Your task to perform on an android device: Do I have any events this weekend? Image 0: 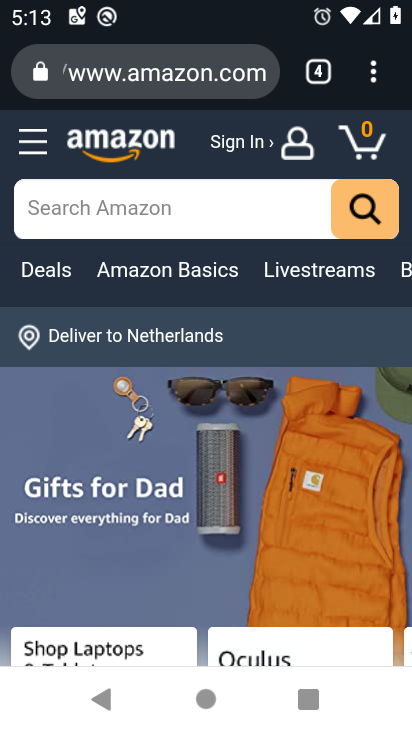
Step 0: press home button
Your task to perform on an android device: Do I have any events this weekend? Image 1: 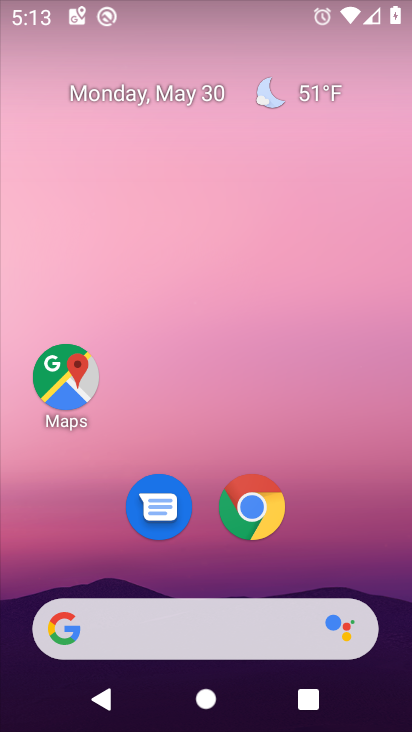
Step 1: drag from (366, 543) to (147, 1)
Your task to perform on an android device: Do I have any events this weekend? Image 2: 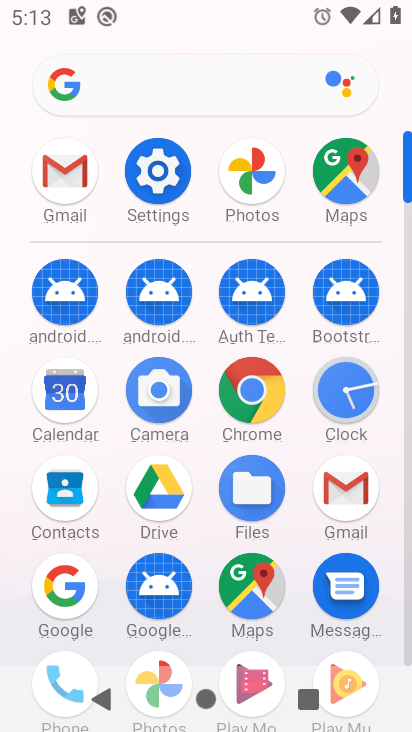
Step 2: click (67, 463)
Your task to perform on an android device: Do I have any events this weekend? Image 3: 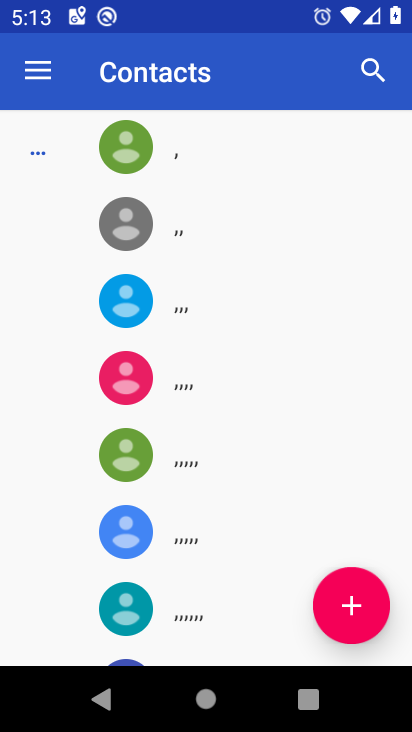
Step 3: press back button
Your task to perform on an android device: Do I have any events this weekend? Image 4: 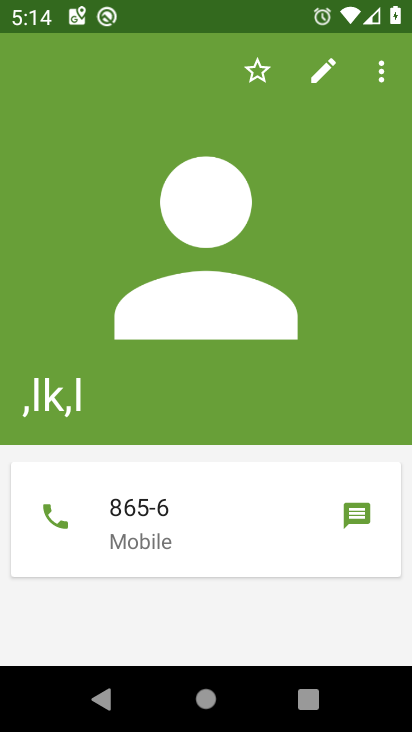
Step 4: press home button
Your task to perform on an android device: Do I have any events this weekend? Image 5: 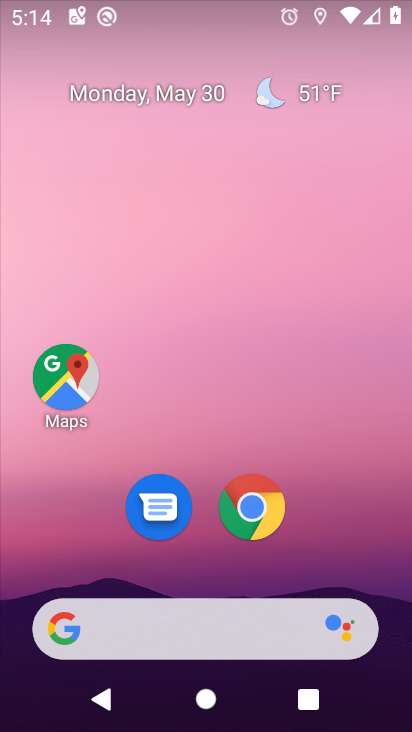
Step 5: drag from (329, 544) to (291, 30)
Your task to perform on an android device: Do I have any events this weekend? Image 6: 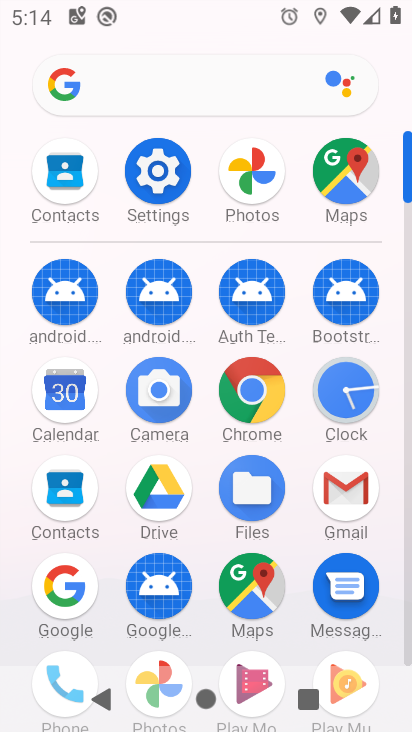
Step 6: click (64, 403)
Your task to perform on an android device: Do I have any events this weekend? Image 7: 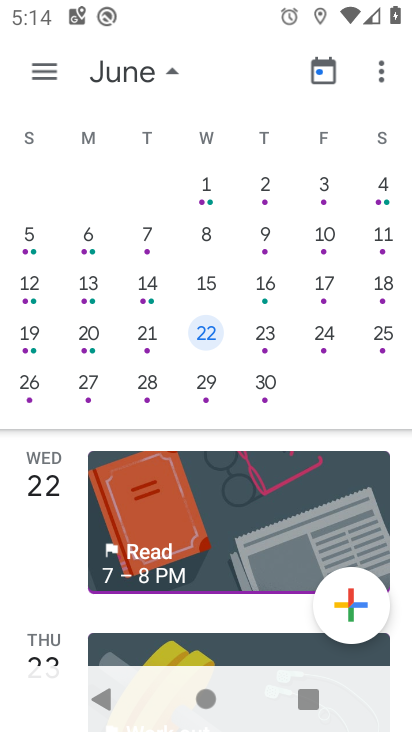
Step 7: drag from (43, 262) to (410, 336)
Your task to perform on an android device: Do I have any events this weekend? Image 8: 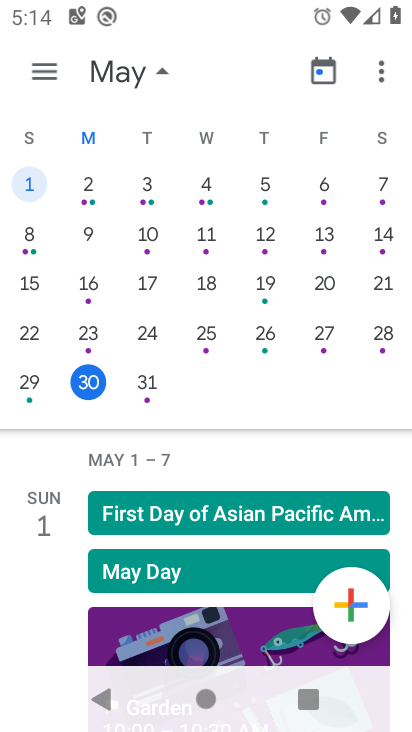
Step 8: click (101, 392)
Your task to perform on an android device: Do I have any events this weekend? Image 9: 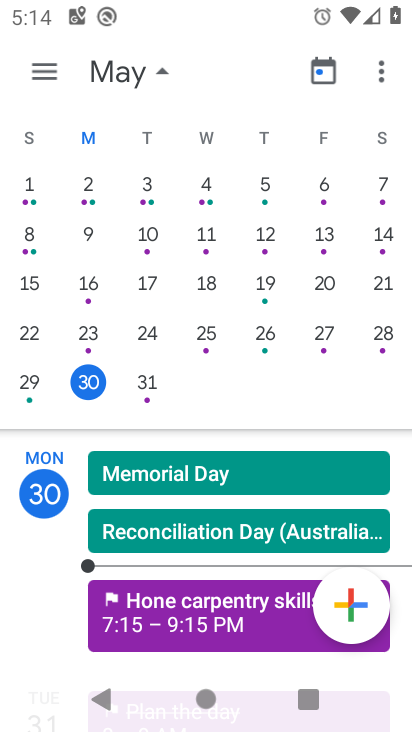
Step 9: click (149, 85)
Your task to perform on an android device: Do I have any events this weekend? Image 10: 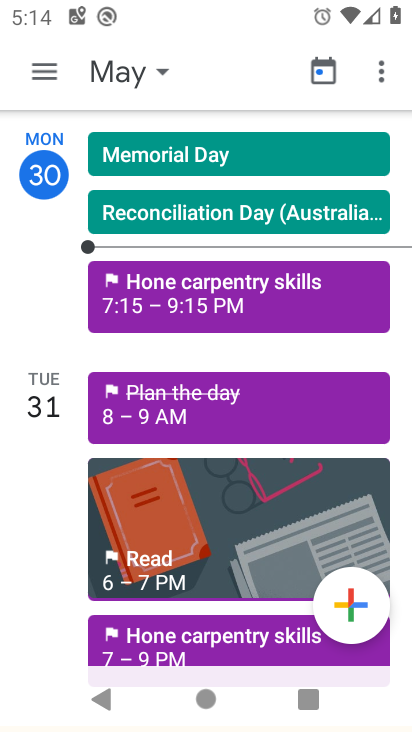
Step 10: task complete